Your task to perform on an android device: find photos in the google photos app Image 0: 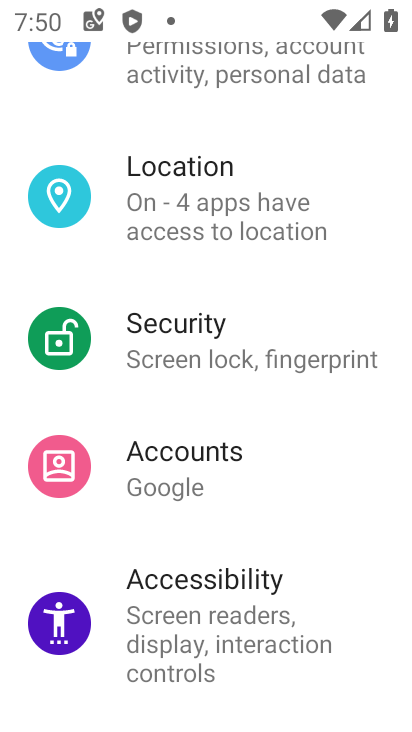
Step 0: press home button
Your task to perform on an android device: find photos in the google photos app Image 1: 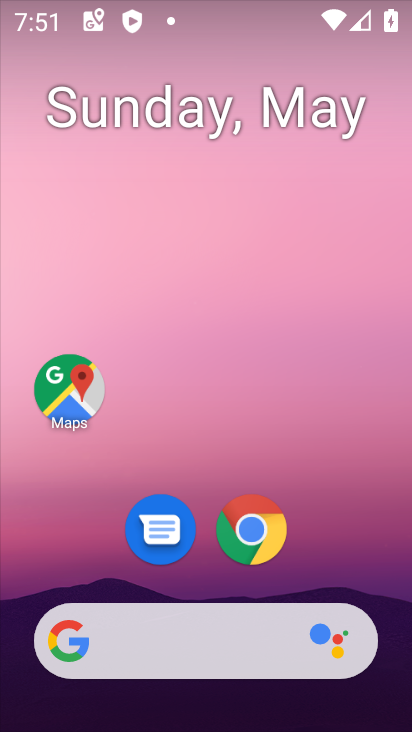
Step 1: drag from (381, 632) to (407, 343)
Your task to perform on an android device: find photos in the google photos app Image 2: 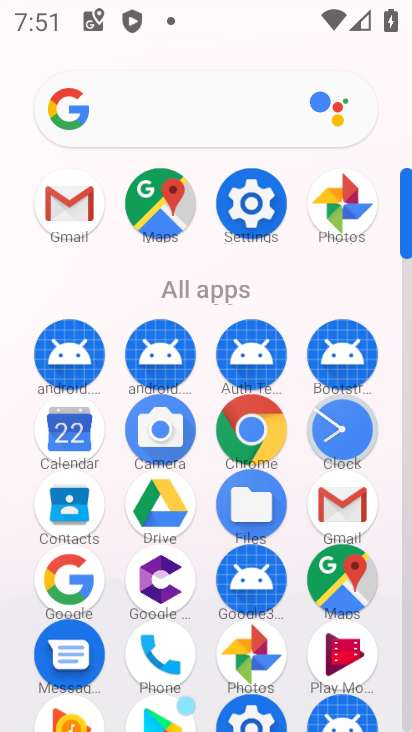
Step 2: click (338, 210)
Your task to perform on an android device: find photos in the google photos app Image 3: 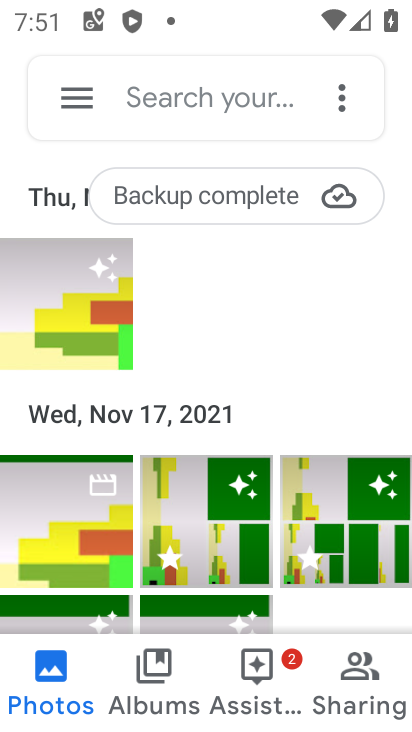
Step 3: click (41, 708)
Your task to perform on an android device: find photos in the google photos app Image 4: 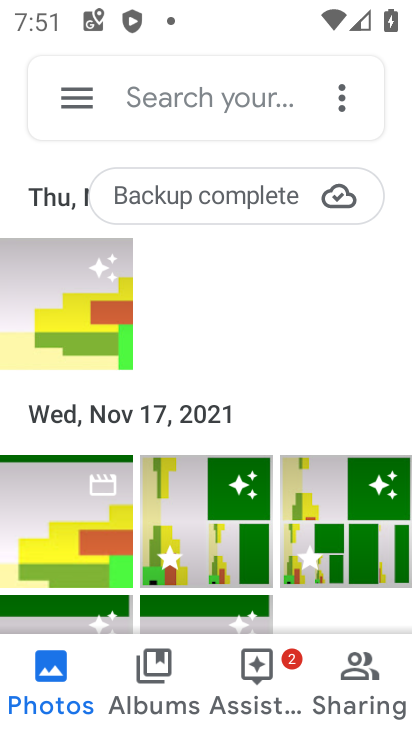
Step 4: task complete